Your task to perform on an android device: Search for a new grill on Home Depot Image 0: 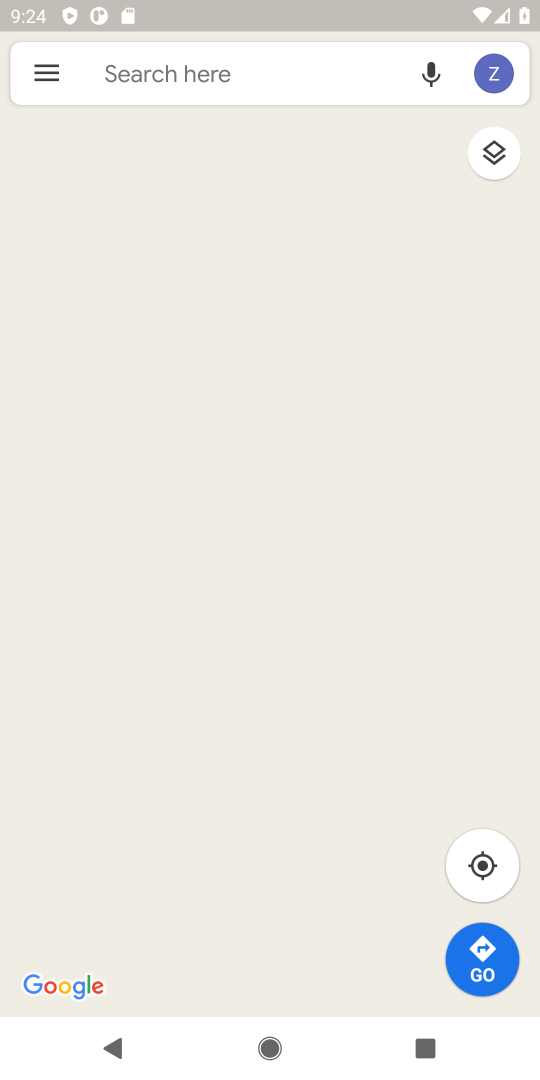
Step 0: press home button
Your task to perform on an android device: Search for a new grill on Home Depot Image 1: 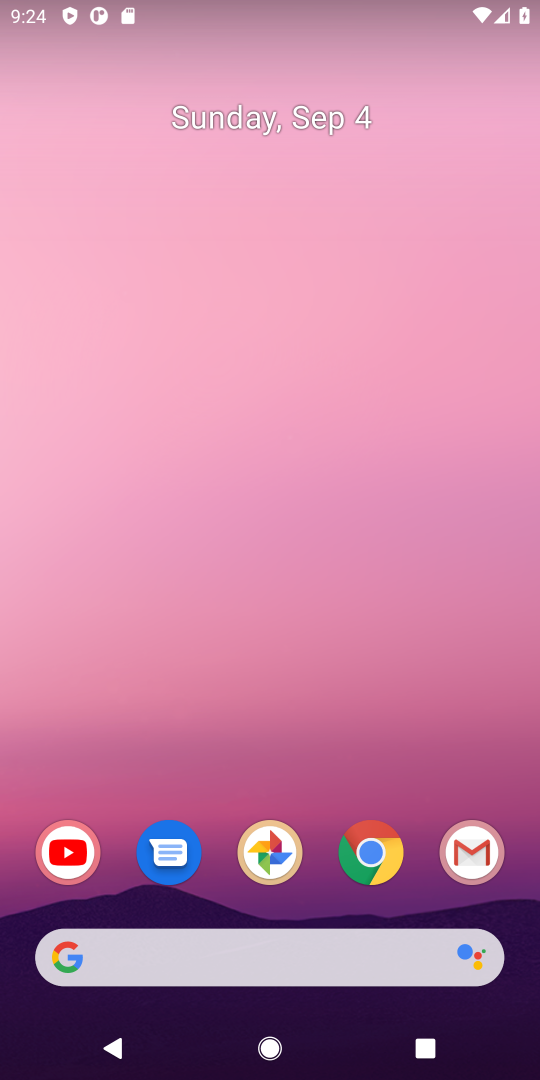
Step 1: drag from (421, 799) to (283, 66)
Your task to perform on an android device: Search for a new grill on Home Depot Image 2: 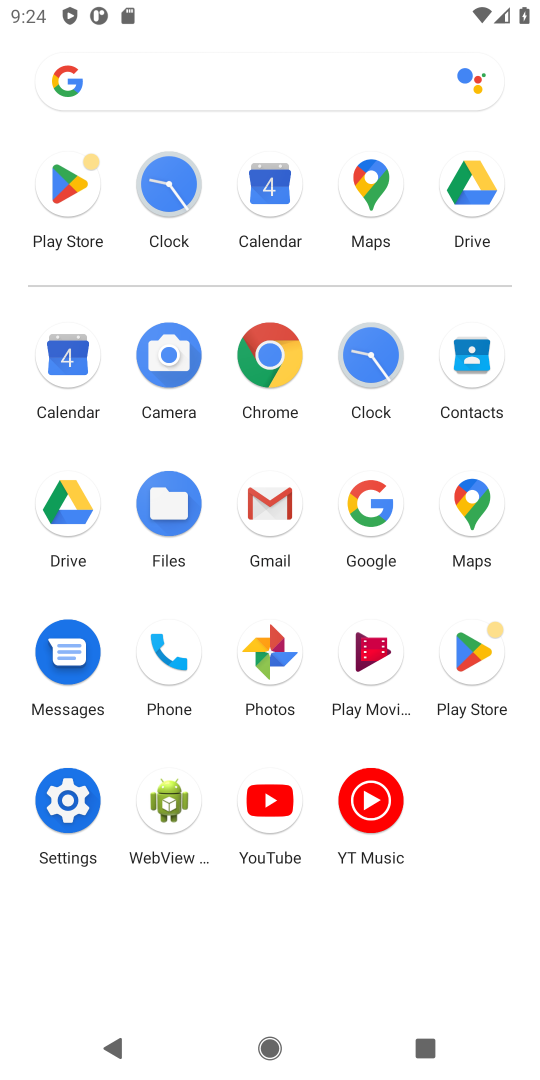
Step 2: click (355, 503)
Your task to perform on an android device: Search for a new grill on Home Depot Image 3: 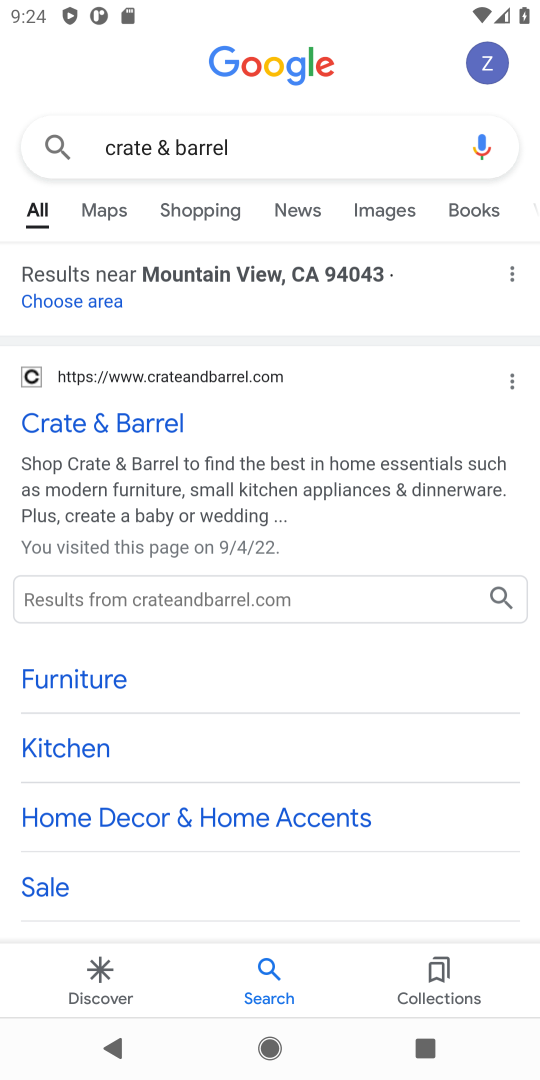
Step 3: press back button
Your task to perform on an android device: Search for a new grill on Home Depot Image 4: 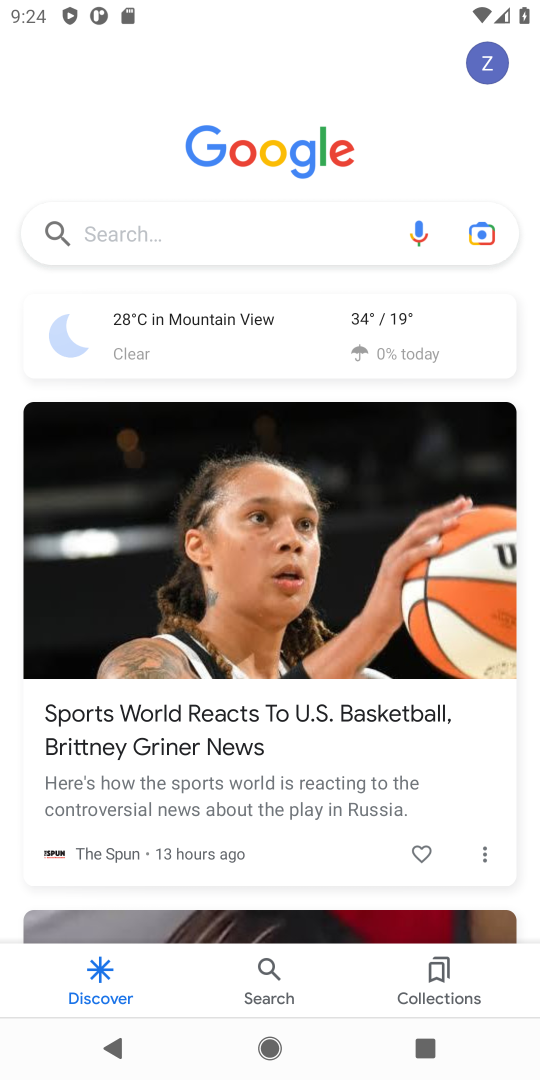
Step 4: click (227, 237)
Your task to perform on an android device: Search for a new grill on Home Depot Image 5: 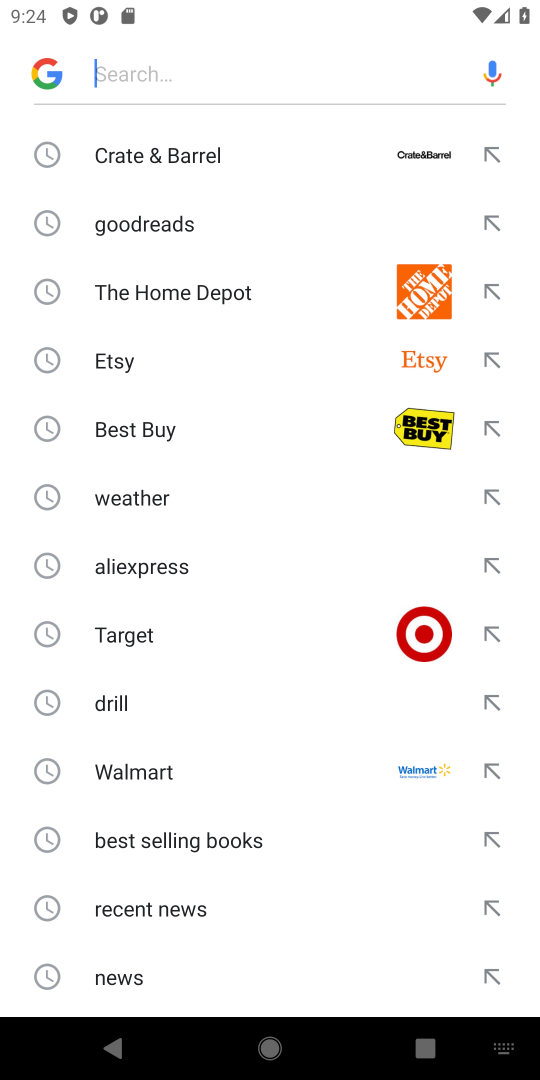
Step 5: click (237, 278)
Your task to perform on an android device: Search for a new grill on Home Depot Image 6: 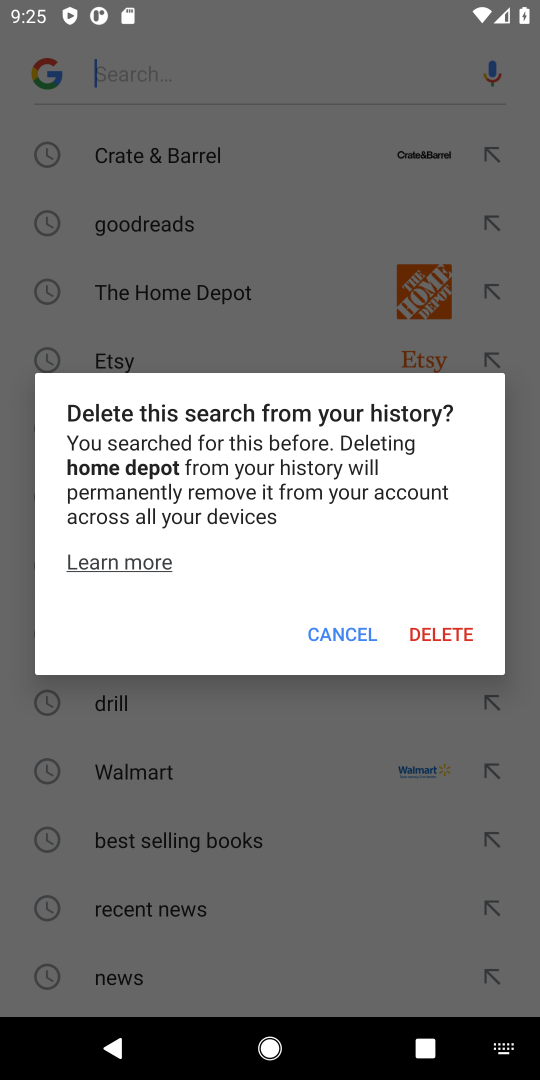
Step 6: click (337, 638)
Your task to perform on an android device: Search for a new grill on Home Depot Image 7: 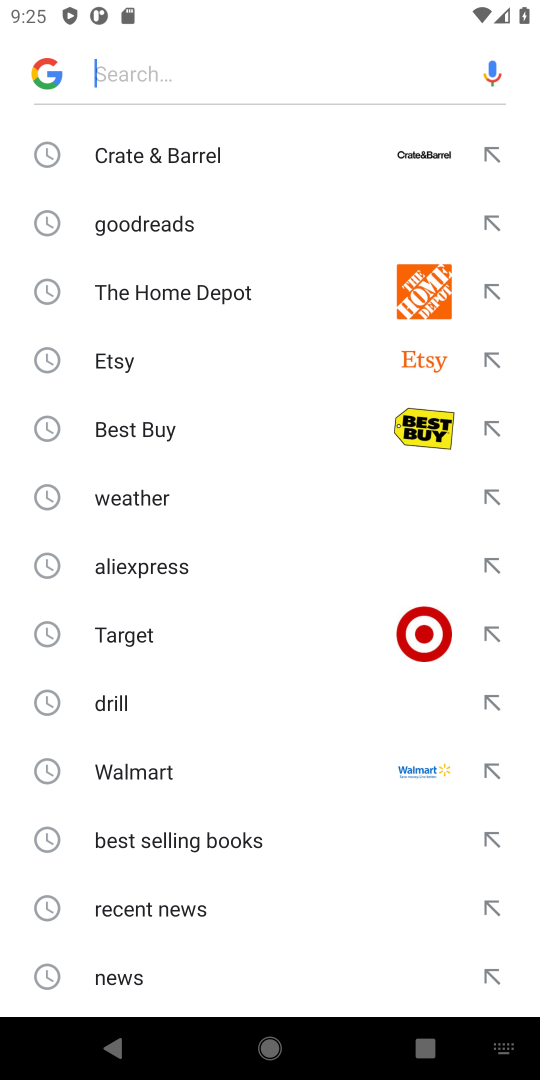
Step 7: click (172, 299)
Your task to perform on an android device: Search for a new grill on Home Depot Image 8: 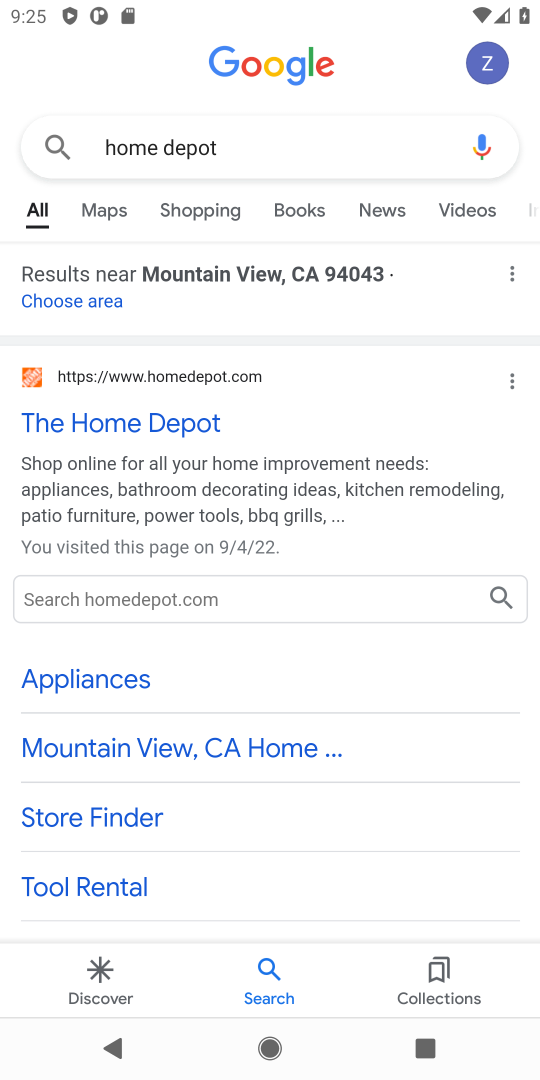
Step 8: click (131, 403)
Your task to perform on an android device: Search for a new grill on Home Depot Image 9: 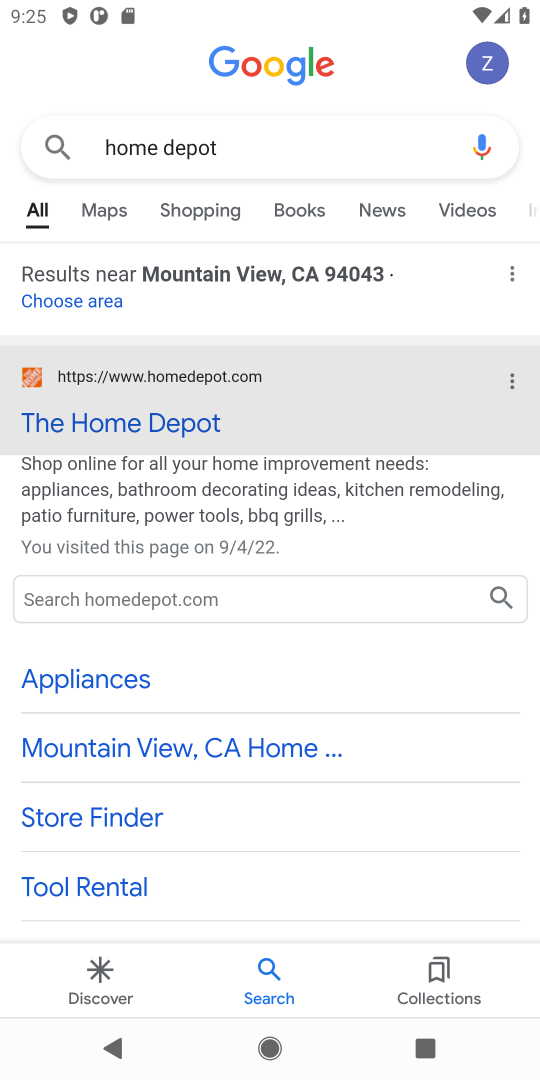
Step 9: click (203, 410)
Your task to perform on an android device: Search for a new grill on Home Depot Image 10: 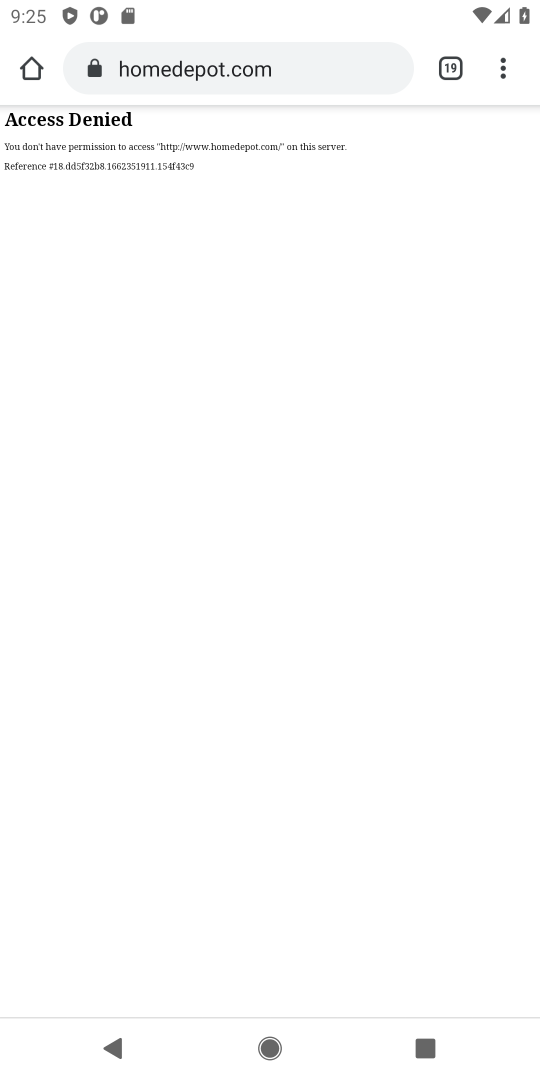
Step 10: task complete